Your task to perform on an android device: See recent photos Image 0: 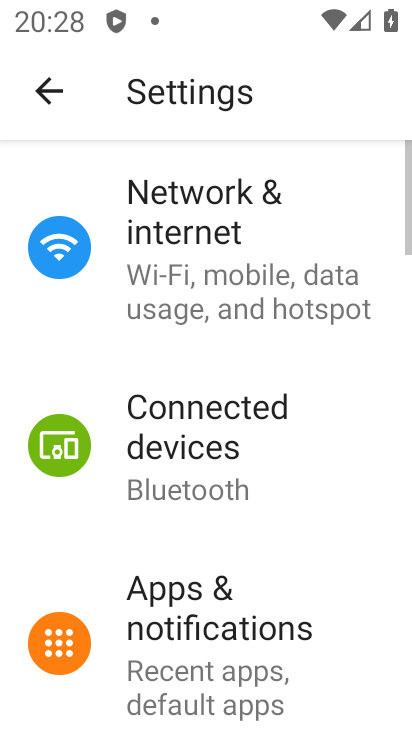
Step 0: press home button
Your task to perform on an android device: See recent photos Image 1: 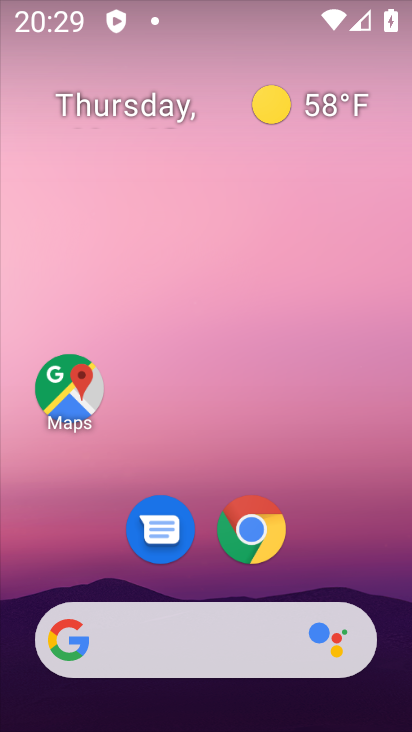
Step 1: drag from (200, 572) to (334, 50)
Your task to perform on an android device: See recent photos Image 2: 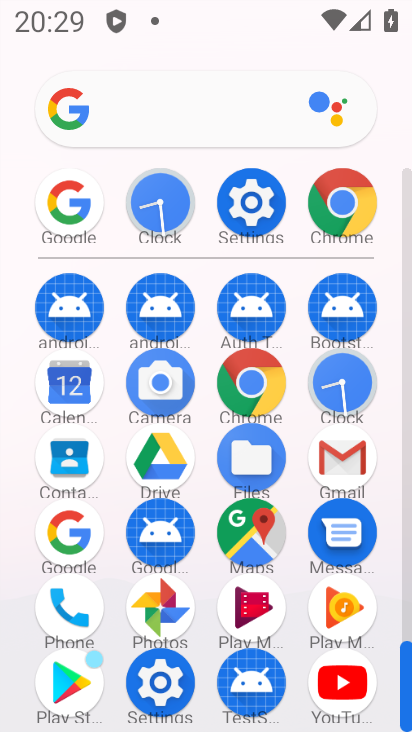
Step 2: click (154, 603)
Your task to perform on an android device: See recent photos Image 3: 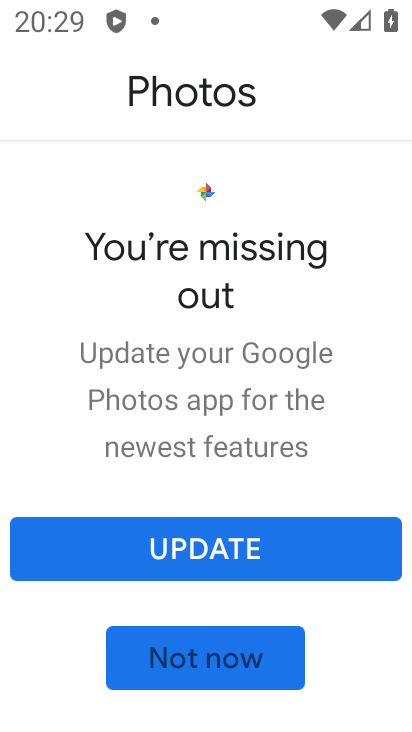
Step 3: click (212, 555)
Your task to perform on an android device: See recent photos Image 4: 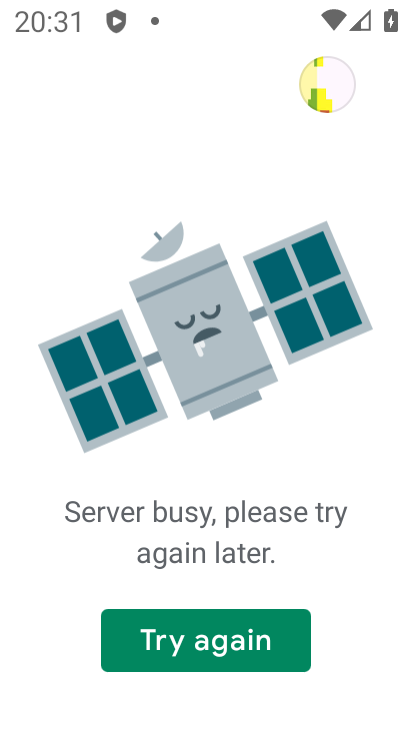
Step 4: task complete